Your task to perform on an android device: Open Chrome and go to settings Image 0: 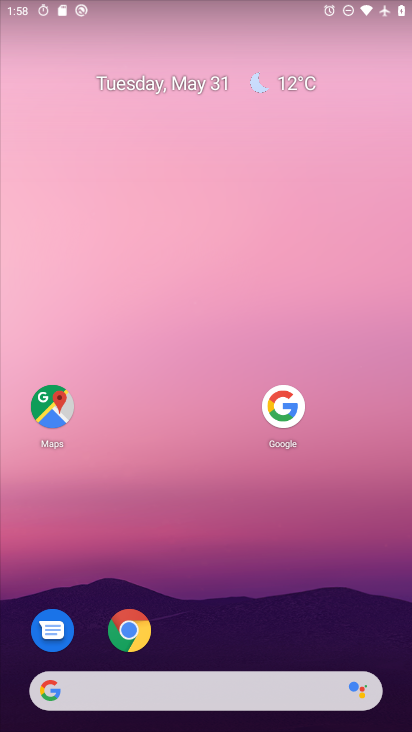
Step 0: press home button
Your task to perform on an android device: Open Chrome and go to settings Image 1: 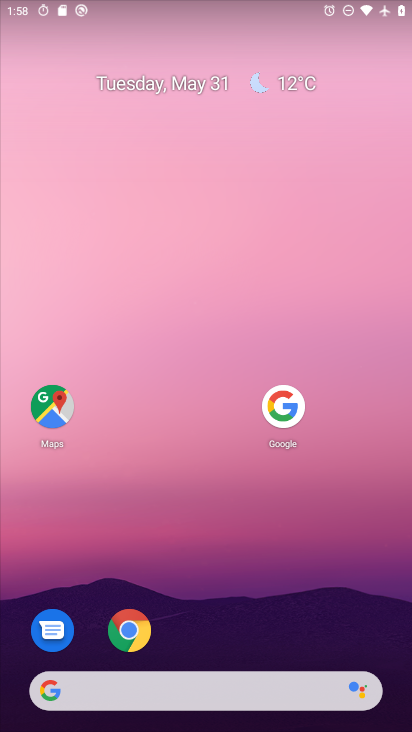
Step 1: click (129, 637)
Your task to perform on an android device: Open Chrome and go to settings Image 2: 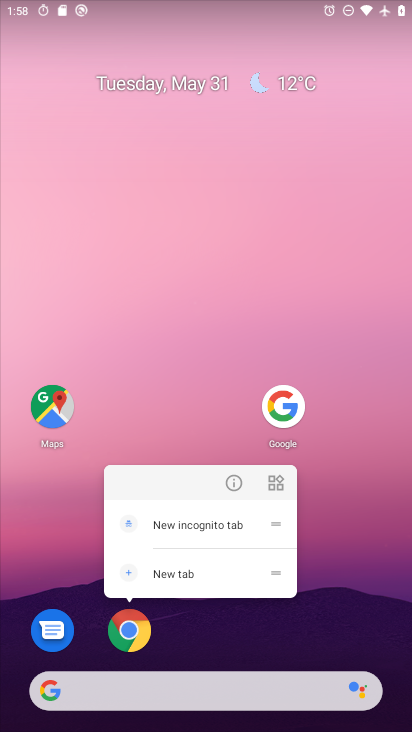
Step 2: click (138, 633)
Your task to perform on an android device: Open Chrome and go to settings Image 3: 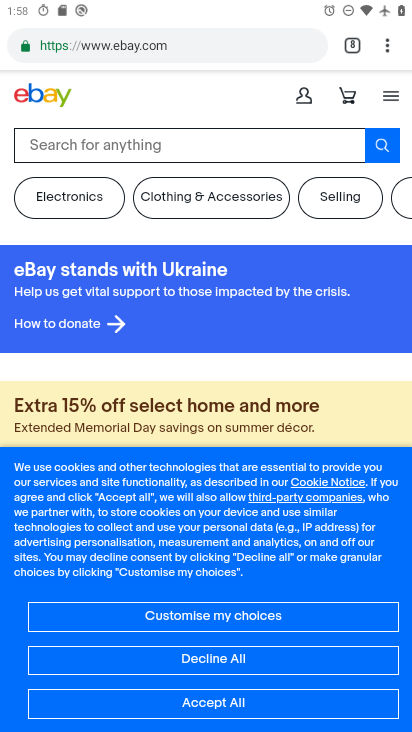
Step 3: task complete